Your task to perform on an android device: Go to Reddit.com Image 0: 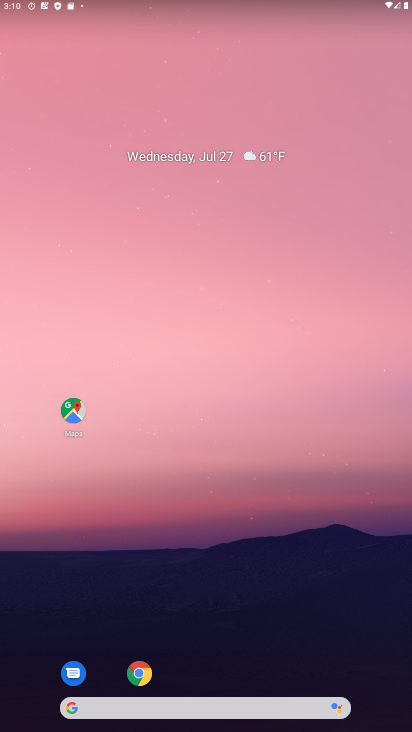
Step 0: click (110, 720)
Your task to perform on an android device: Go to Reddit.com Image 1: 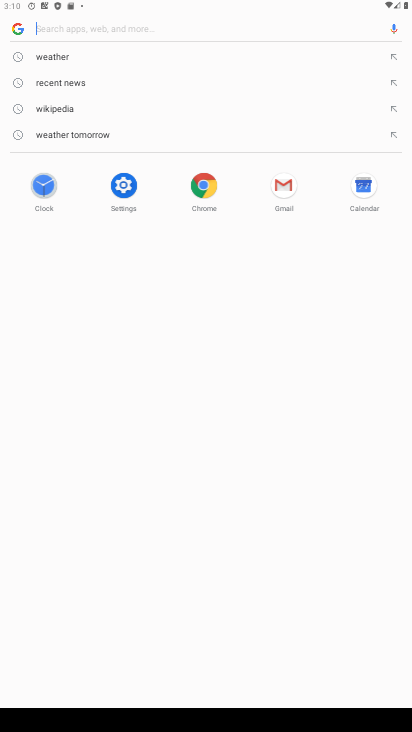
Step 1: type "Reddit.com"
Your task to perform on an android device: Go to Reddit.com Image 2: 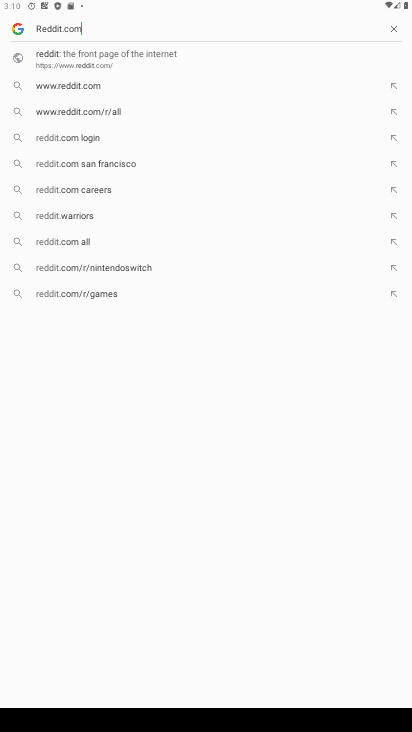
Step 2: type ""
Your task to perform on an android device: Go to Reddit.com Image 3: 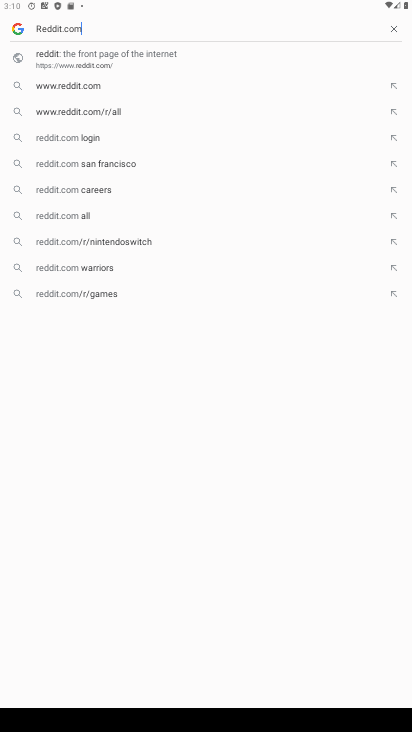
Step 3: type ""
Your task to perform on an android device: Go to Reddit.com Image 4: 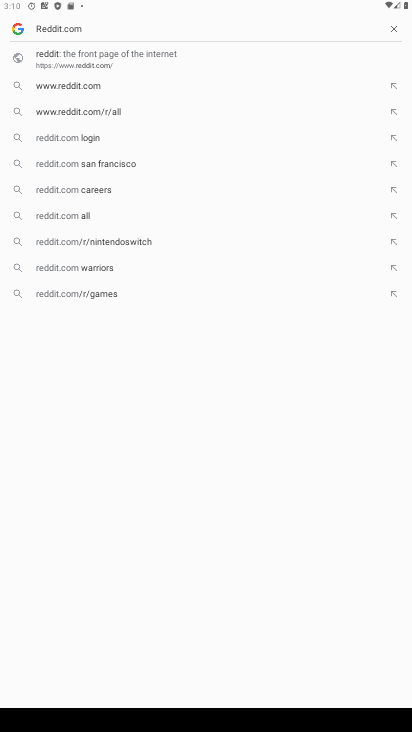
Step 4: task complete